Your task to perform on an android device: Search for Mexican restaurants on Maps Image 0: 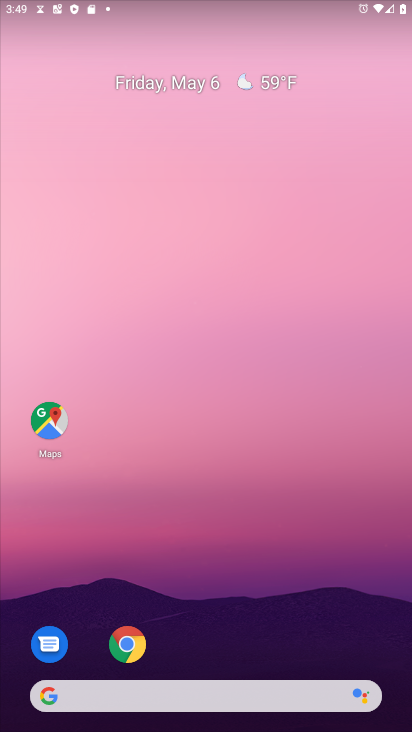
Step 0: click (49, 421)
Your task to perform on an android device: Search for Mexican restaurants on Maps Image 1: 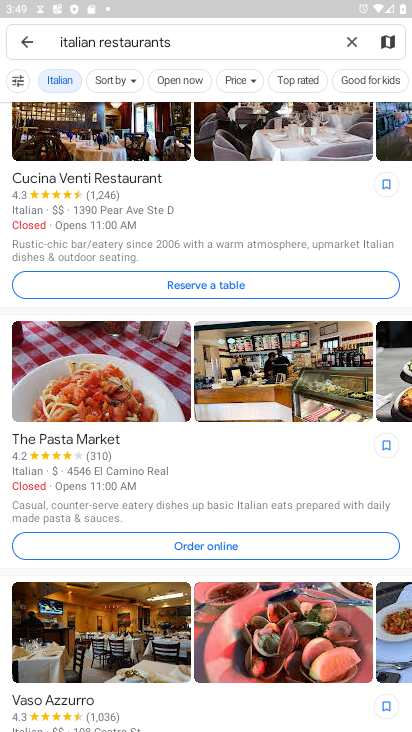
Step 1: click (350, 38)
Your task to perform on an android device: Search for Mexican restaurants on Maps Image 2: 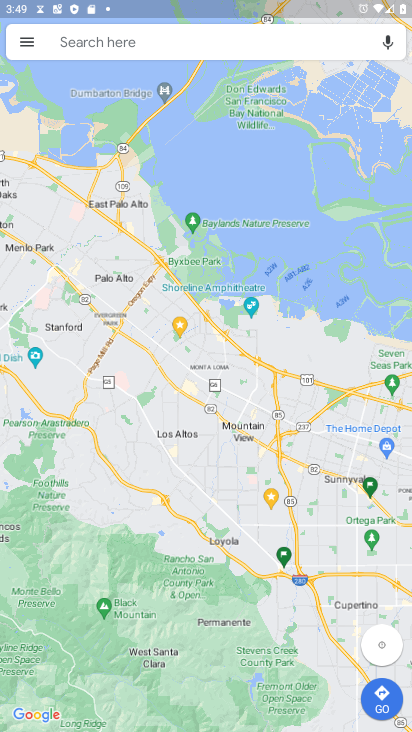
Step 2: click (155, 38)
Your task to perform on an android device: Search for Mexican restaurants on Maps Image 3: 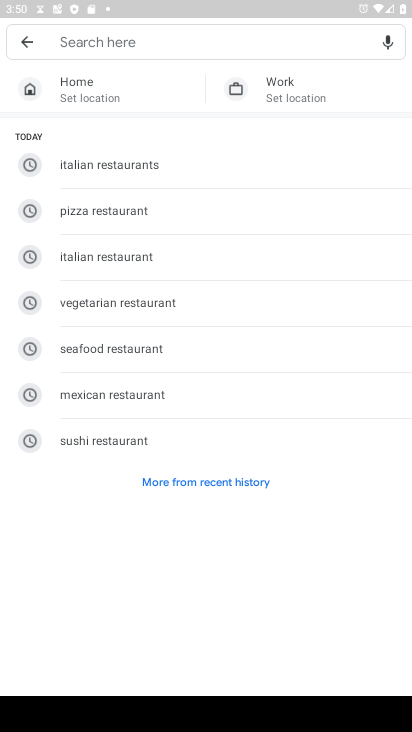
Step 3: type "Mexican restaurants"
Your task to perform on an android device: Search for Mexican restaurants on Maps Image 4: 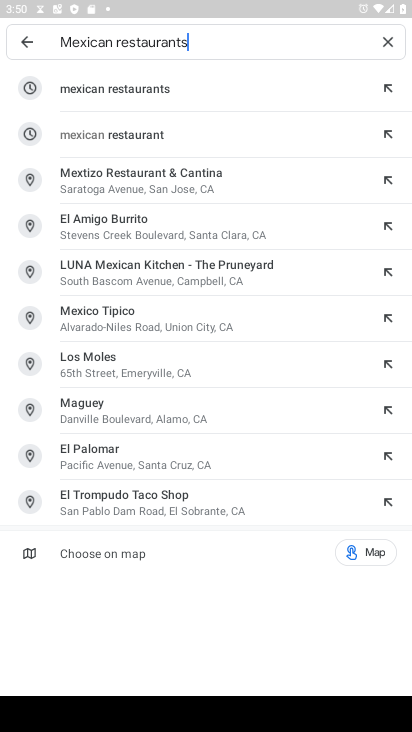
Step 4: click (130, 85)
Your task to perform on an android device: Search for Mexican restaurants on Maps Image 5: 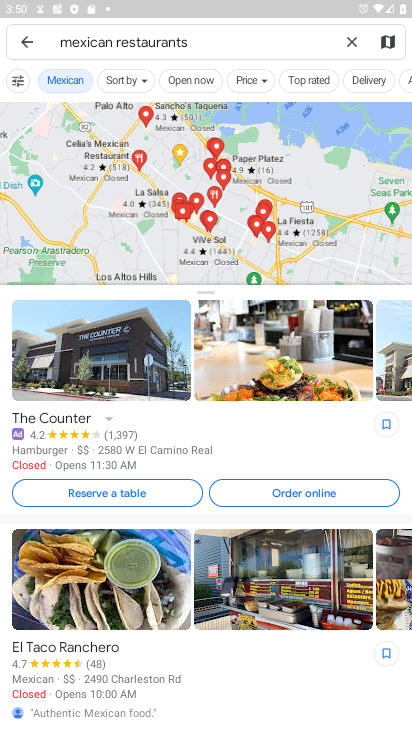
Step 5: task complete